Your task to perform on an android device: Show me the alarms in the clock app Image 0: 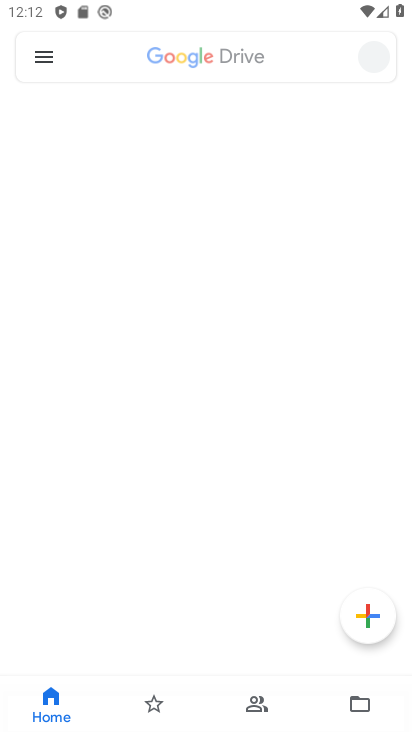
Step 0: drag from (231, 632) to (292, 240)
Your task to perform on an android device: Show me the alarms in the clock app Image 1: 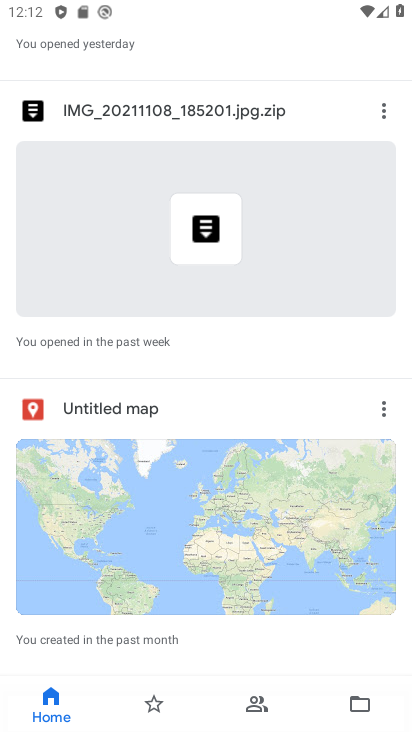
Step 1: press home button
Your task to perform on an android device: Show me the alarms in the clock app Image 2: 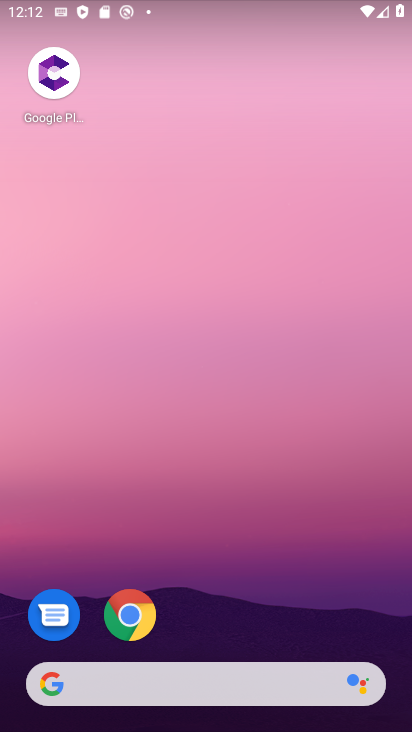
Step 2: drag from (224, 488) to (286, 160)
Your task to perform on an android device: Show me the alarms in the clock app Image 3: 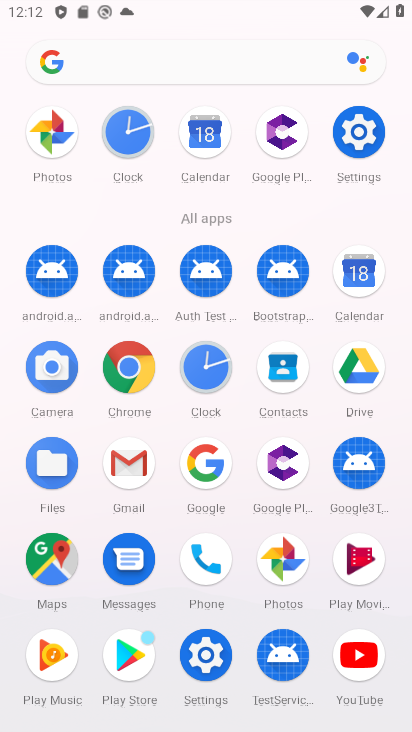
Step 3: click (196, 368)
Your task to perform on an android device: Show me the alarms in the clock app Image 4: 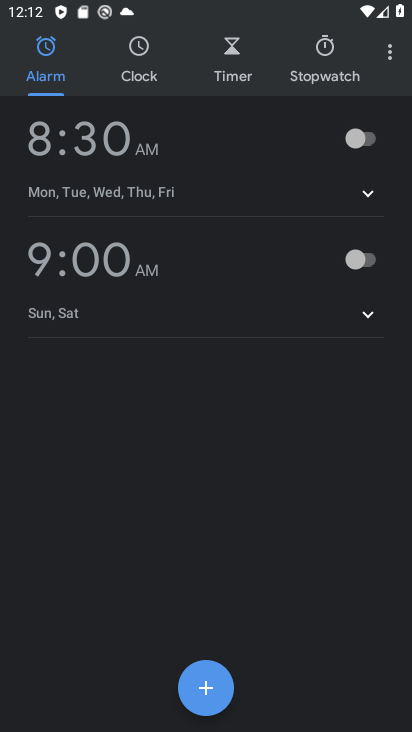
Step 4: task complete